Your task to perform on an android device: turn notification dots off Image 0: 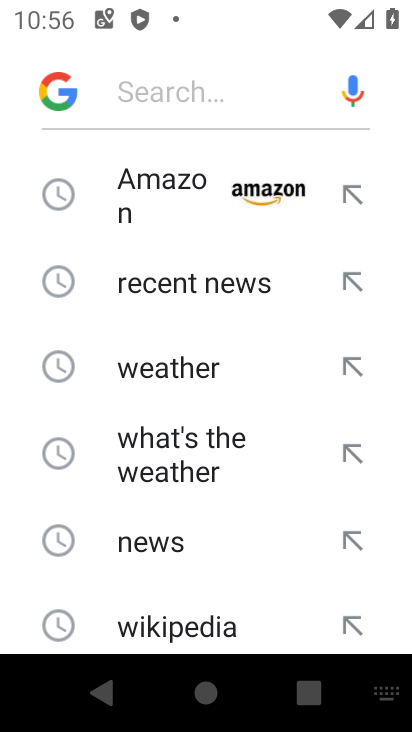
Step 0: press home button
Your task to perform on an android device: turn notification dots off Image 1: 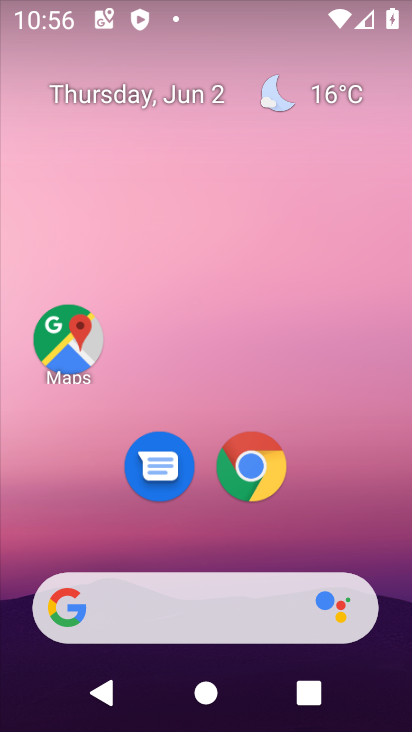
Step 1: drag from (208, 549) to (233, 6)
Your task to perform on an android device: turn notification dots off Image 2: 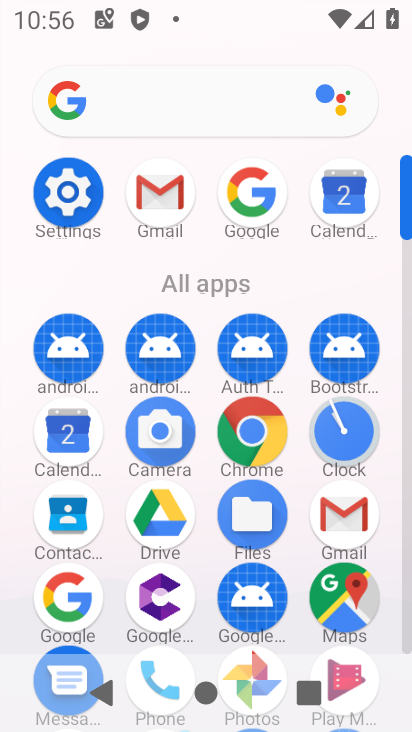
Step 2: click (78, 185)
Your task to perform on an android device: turn notification dots off Image 3: 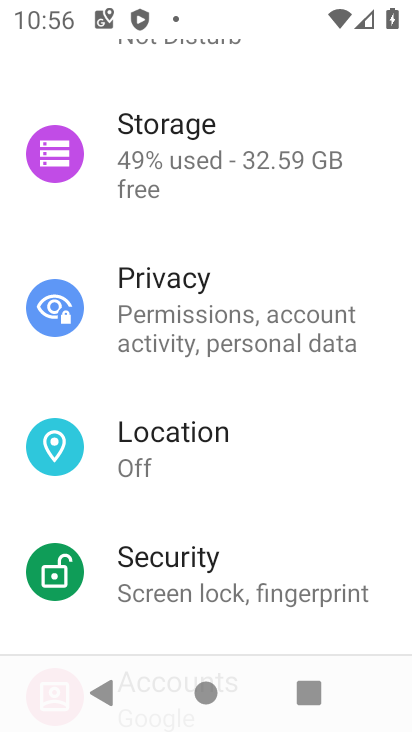
Step 3: drag from (255, 429) to (255, 510)
Your task to perform on an android device: turn notification dots off Image 4: 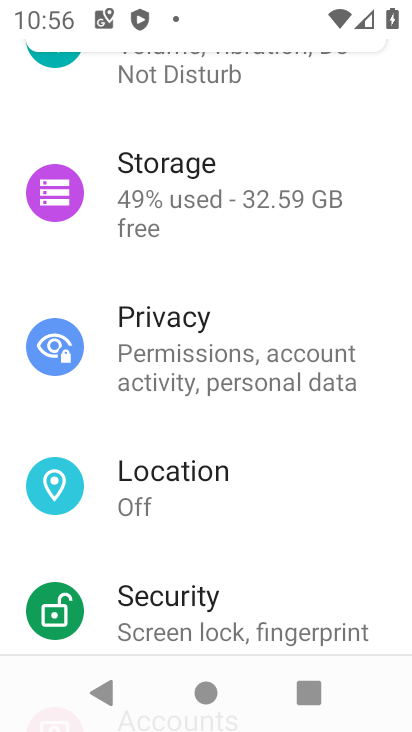
Step 4: drag from (232, 196) to (232, 505)
Your task to perform on an android device: turn notification dots off Image 5: 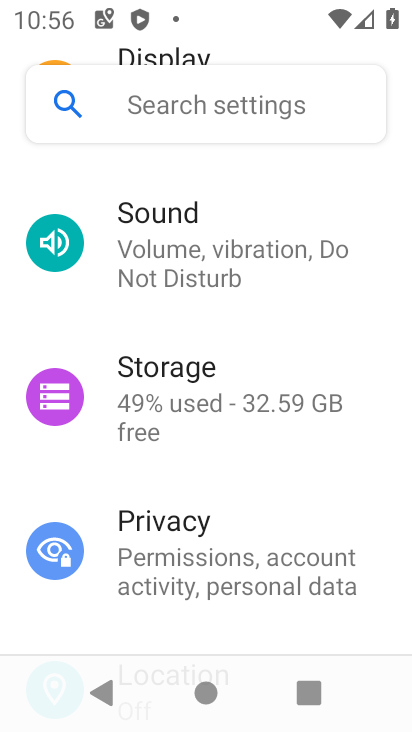
Step 5: drag from (209, 182) to (219, 458)
Your task to perform on an android device: turn notification dots off Image 6: 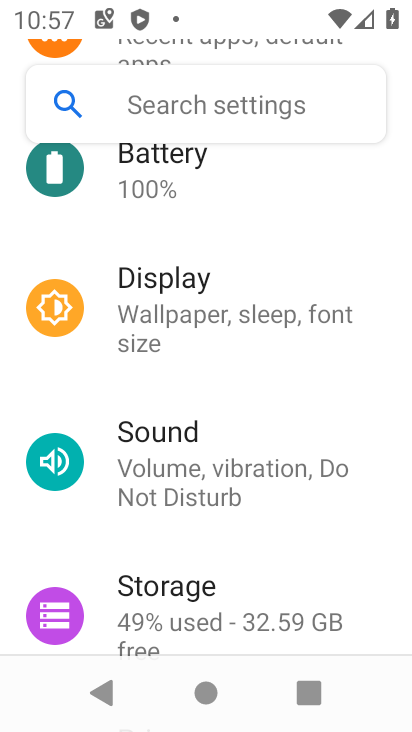
Step 6: drag from (227, 197) to (250, 440)
Your task to perform on an android device: turn notification dots off Image 7: 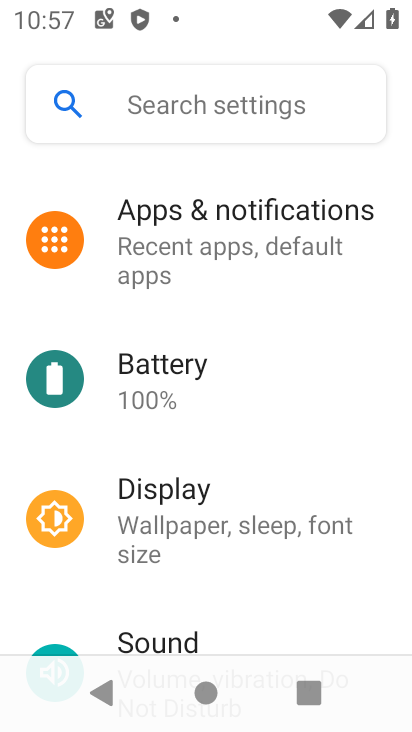
Step 7: click (282, 245)
Your task to perform on an android device: turn notification dots off Image 8: 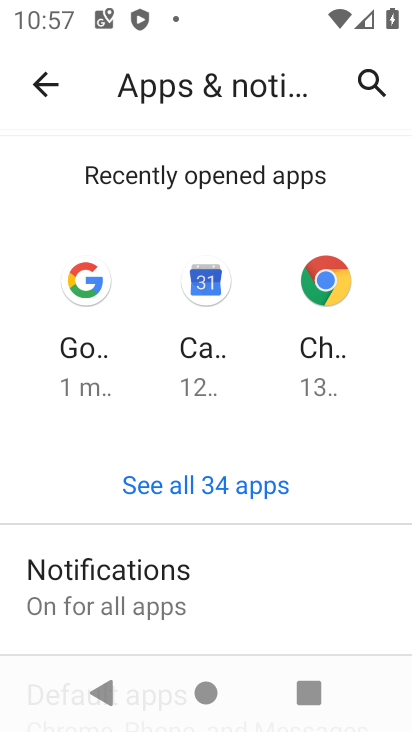
Step 8: click (248, 598)
Your task to perform on an android device: turn notification dots off Image 9: 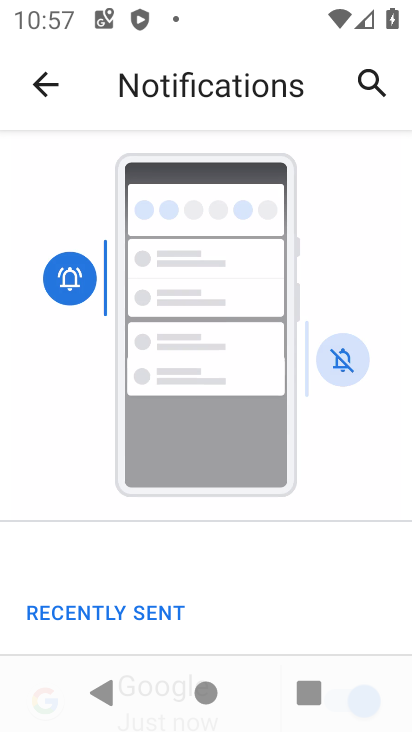
Step 9: drag from (233, 540) to (252, 199)
Your task to perform on an android device: turn notification dots off Image 10: 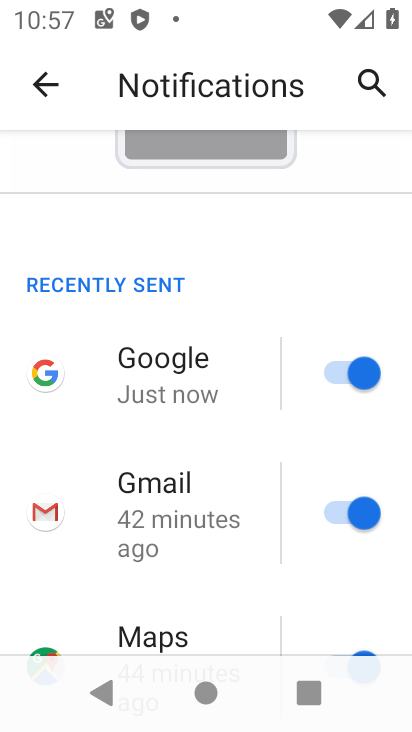
Step 10: drag from (207, 591) to (239, 267)
Your task to perform on an android device: turn notification dots off Image 11: 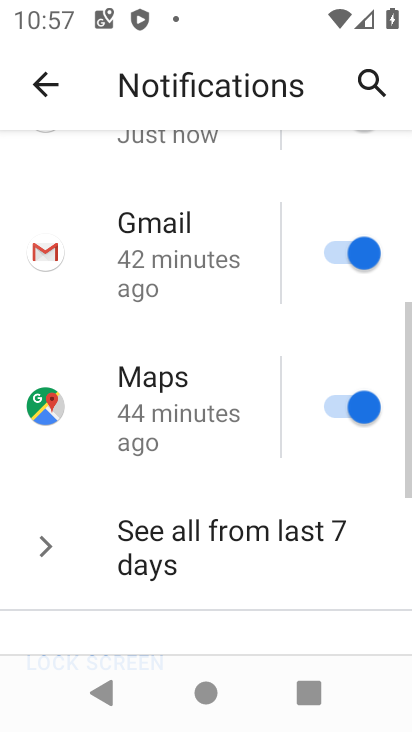
Step 11: drag from (194, 592) to (233, 318)
Your task to perform on an android device: turn notification dots off Image 12: 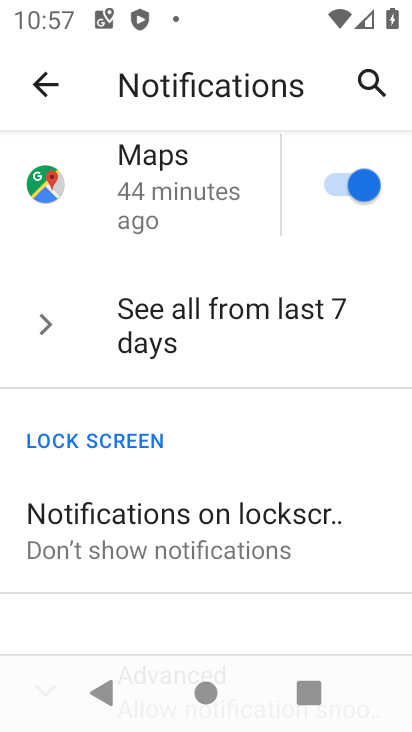
Step 12: drag from (203, 565) to (237, 311)
Your task to perform on an android device: turn notification dots off Image 13: 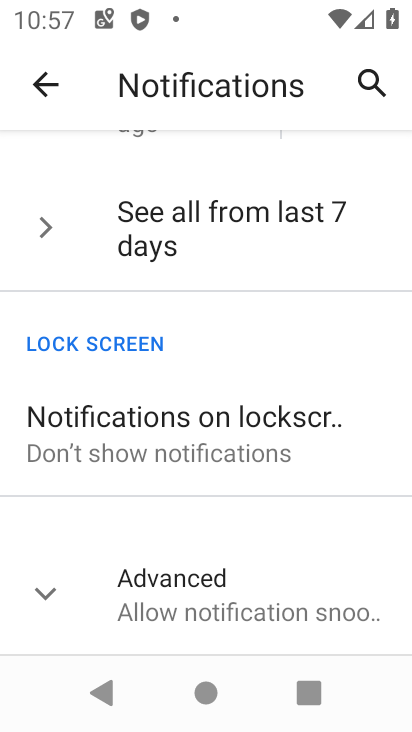
Step 13: click (222, 616)
Your task to perform on an android device: turn notification dots off Image 14: 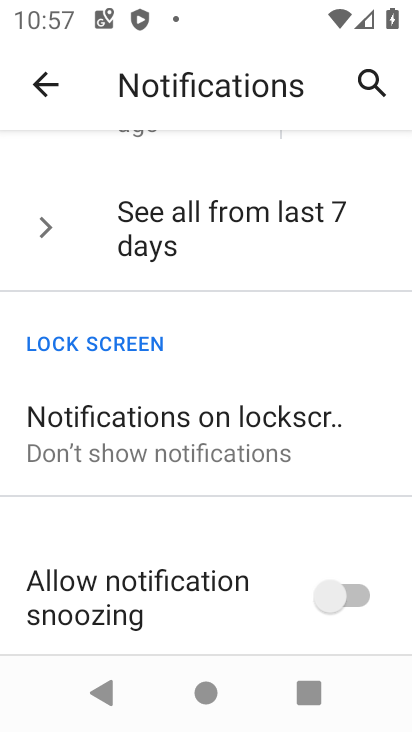
Step 14: drag from (241, 599) to (264, 310)
Your task to perform on an android device: turn notification dots off Image 15: 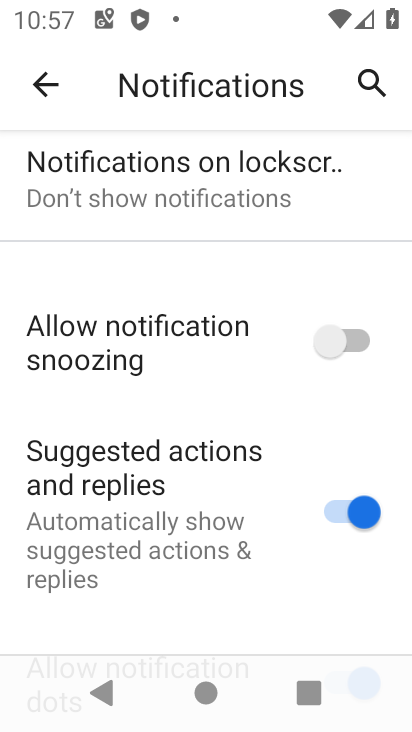
Step 15: drag from (274, 576) to (293, 292)
Your task to perform on an android device: turn notification dots off Image 16: 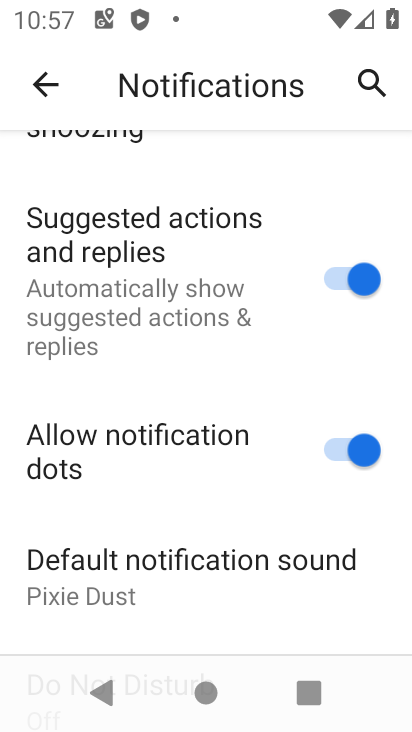
Step 16: drag from (317, 571) to (351, 269)
Your task to perform on an android device: turn notification dots off Image 17: 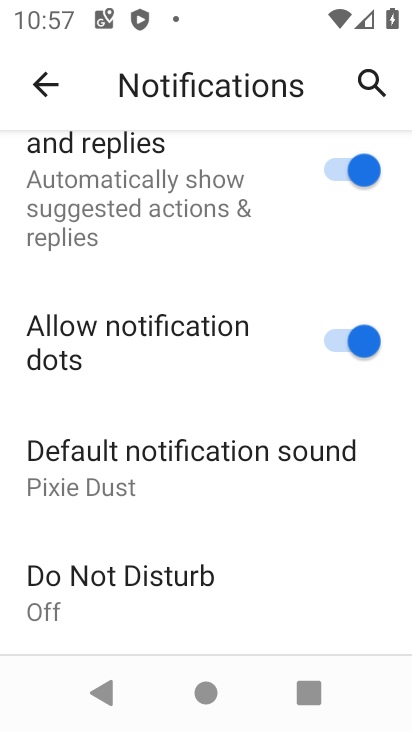
Step 17: click (339, 335)
Your task to perform on an android device: turn notification dots off Image 18: 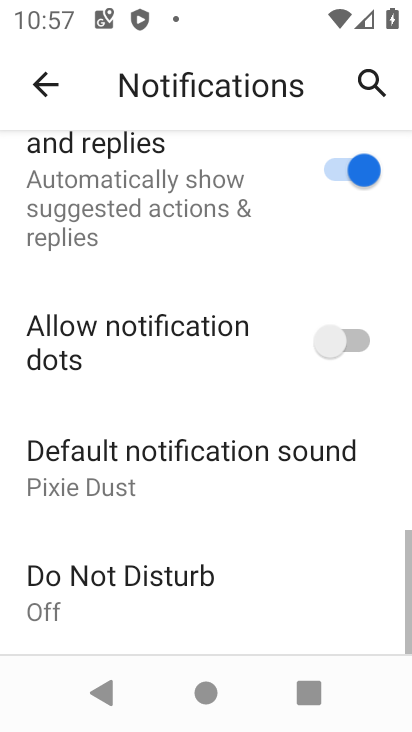
Step 18: task complete